Your task to perform on an android device: Is it going to rain today? Image 0: 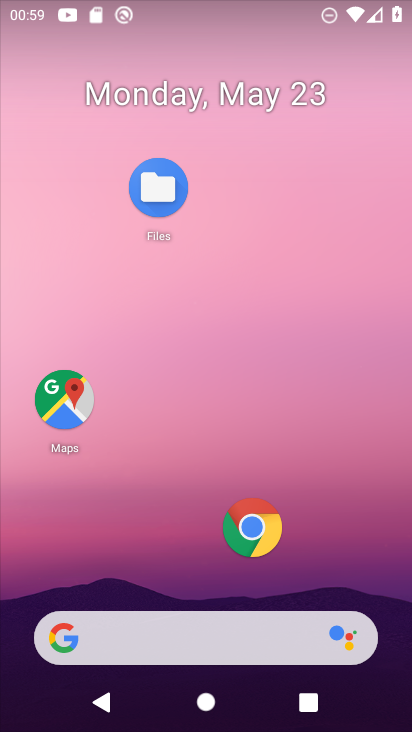
Step 0: click (199, 633)
Your task to perform on an android device: Is it going to rain today? Image 1: 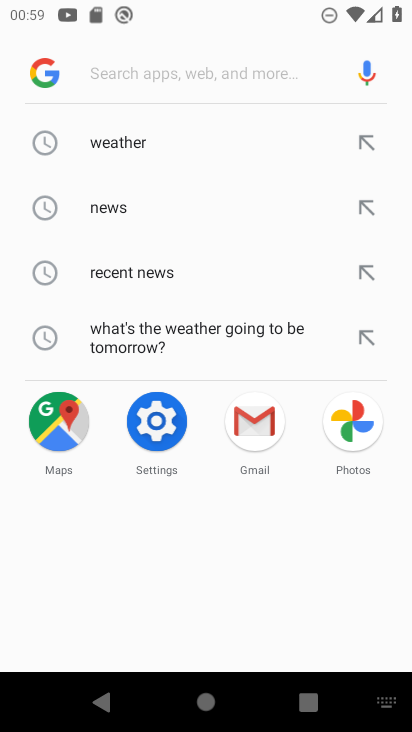
Step 1: click (110, 144)
Your task to perform on an android device: Is it going to rain today? Image 2: 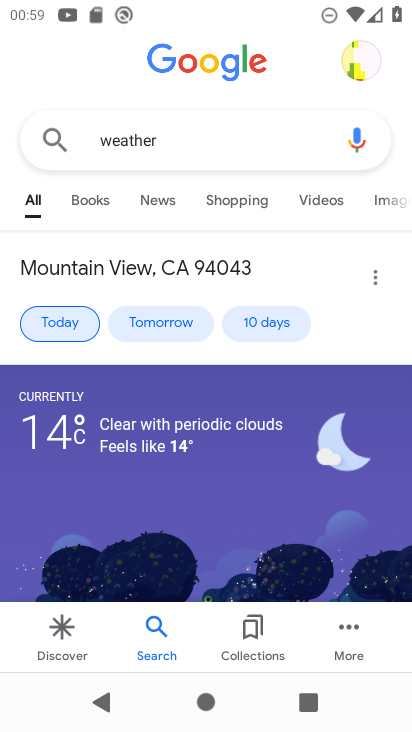
Step 2: task complete